Your task to perform on an android device: turn on showing notifications on the lock screen Image 0: 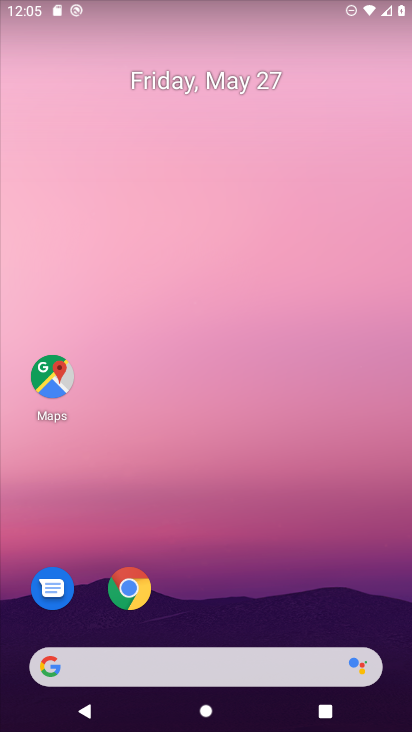
Step 0: drag from (382, 616) to (339, 105)
Your task to perform on an android device: turn on showing notifications on the lock screen Image 1: 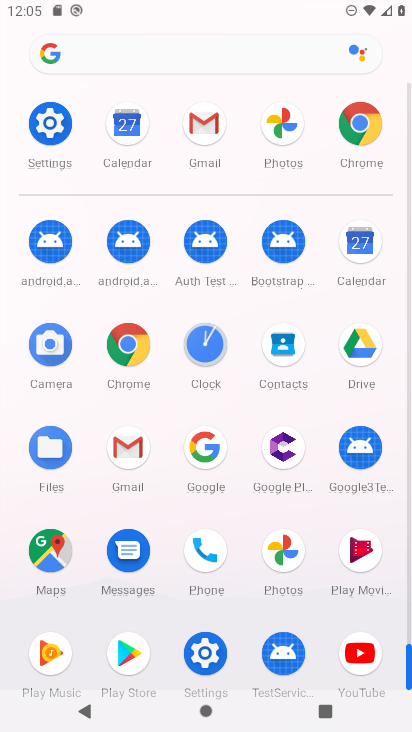
Step 1: click (409, 625)
Your task to perform on an android device: turn on showing notifications on the lock screen Image 2: 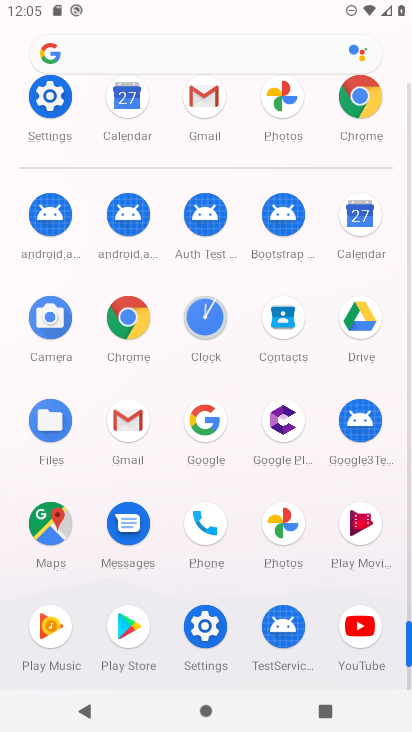
Step 2: click (204, 628)
Your task to perform on an android device: turn on showing notifications on the lock screen Image 3: 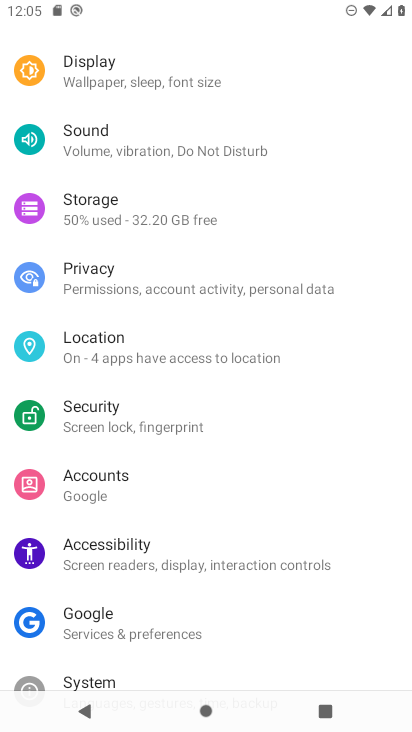
Step 3: drag from (317, 109) to (322, 472)
Your task to perform on an android device: turn on showing notifications on the lock screen Image 4: 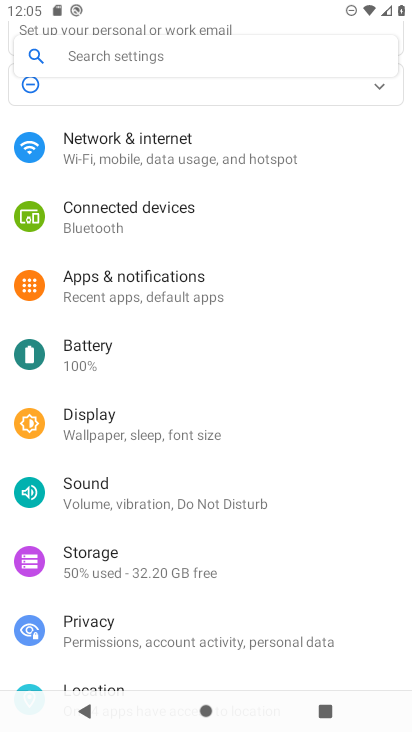
Step 4: click (95, 261)
Your task to perform on an android device: turn on showing notifications on the lock screen Image 5: 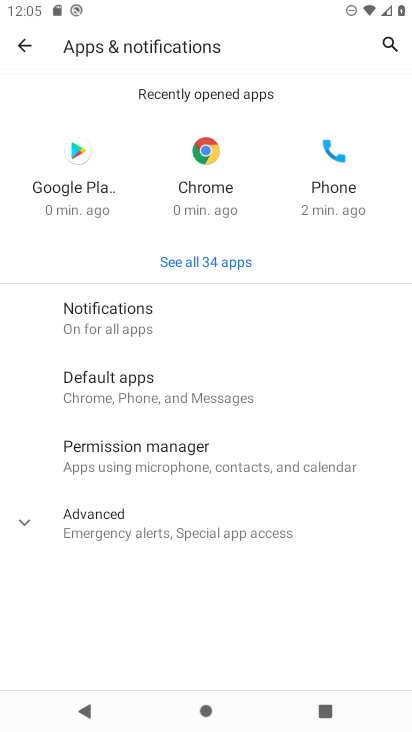
Step 5: click (104, 303)
Your task to perform on an android device: turn on showing notifications on the lock screen Image 6: 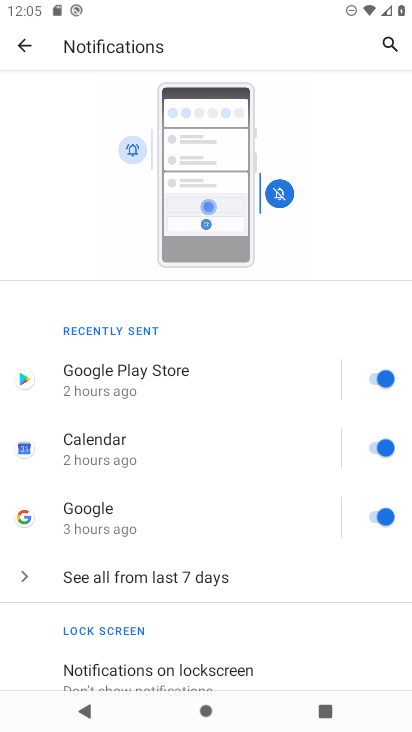
Step 6: drag from (260, 649) to (311, 123)
Your task to perform on an android device: turn on showing notifications on the lock screen Image 7: 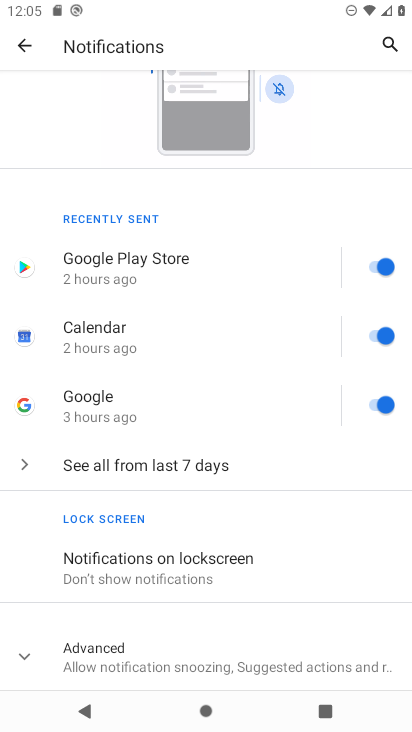
Step 7: click (148, 567)
Your task to perform on an android device: turn on showing notifications on the lock screen Image 8: 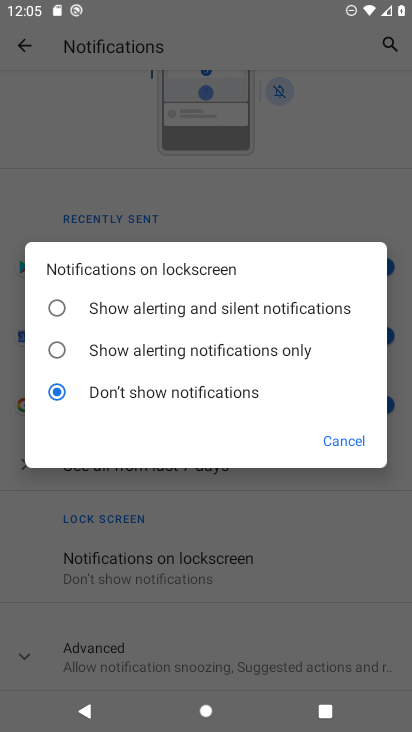
Step 8: click (52, 308)
Your task to perform on an android device: turn on showing notifications on the lock screen Image 9: 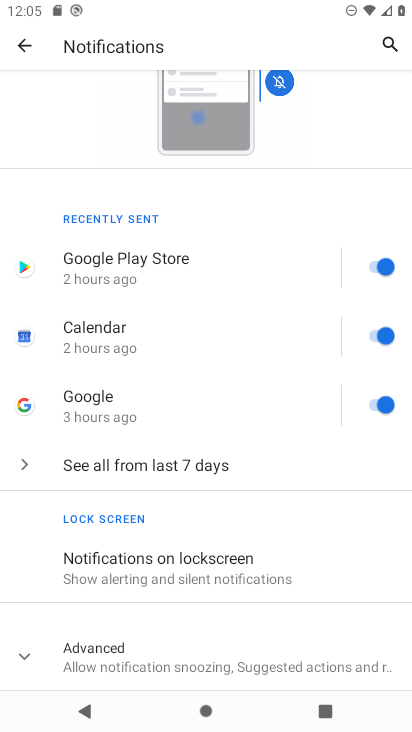
Step 9: task complete